Your task to perform on an android device: What's the weather going to be tomorrow? Image 0: 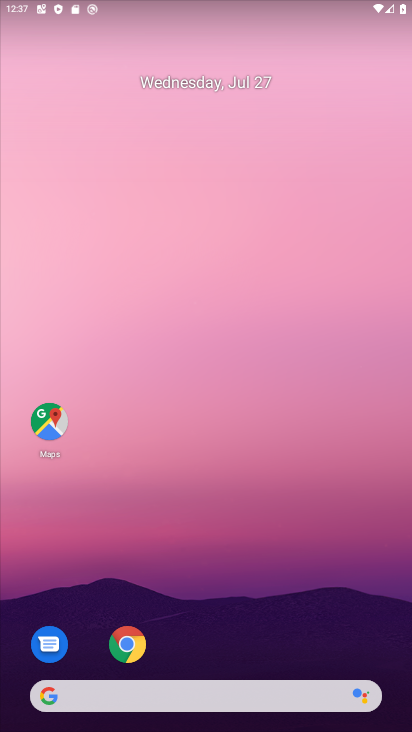
Step 0: click (127, 646)
Your task to perform on an android device: What's the weather going to be tomorrow? Image 1: 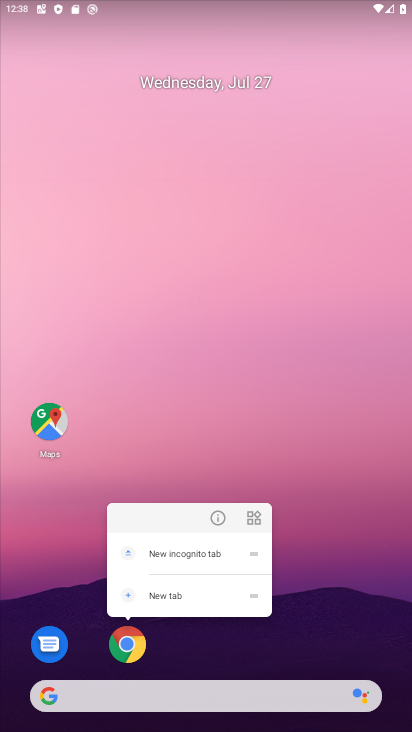
Step 1: click (118, 653)
Your task to perform on an android device: What's the weather going to be tomorrow? Image 2: 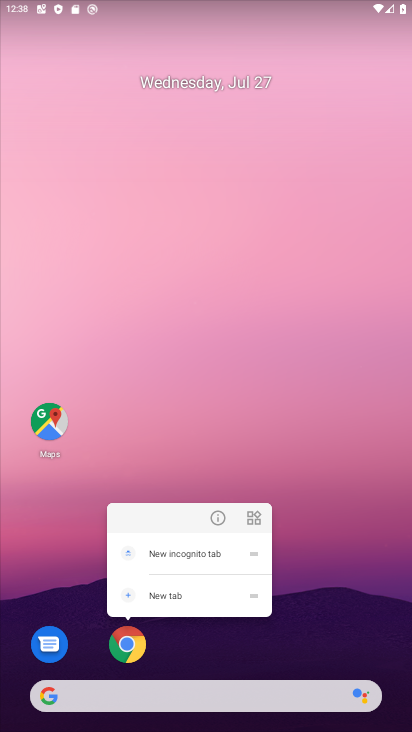
Step 2: click (118, 653)
Your task to perform on an android device: What's the weather going to be tomorrow? Image 3: 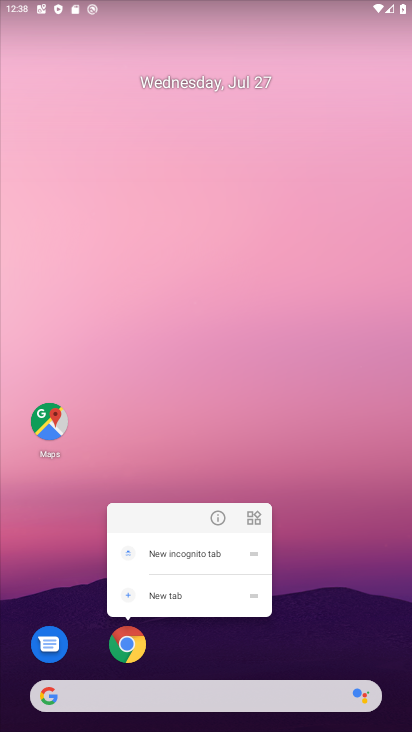
Step 3: click (118, 653)
Your task to perform on an android device: What's the weather going to be tomorrow? Image 4: 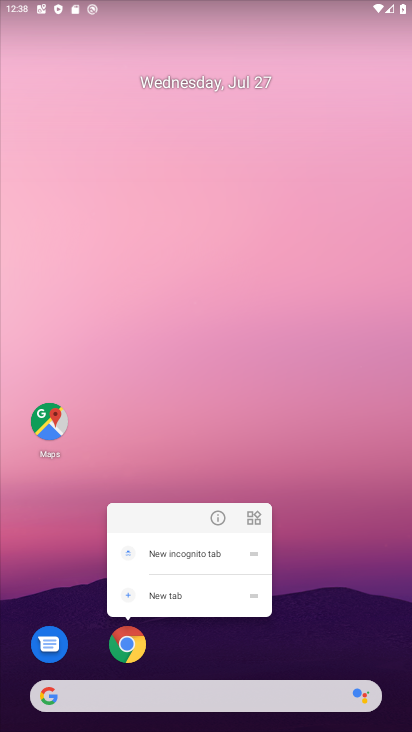
Step 4: click (122, 650)
Your task to perform on an android device: What's the weather going to be tomorrow? Image 5: 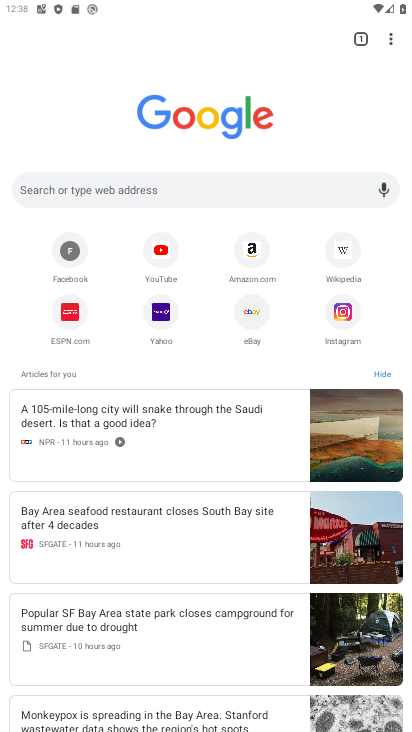
Step 5: click (229, 182)
Your task to perform on an android device: What's the weather going to be tomorrow? Image 6: 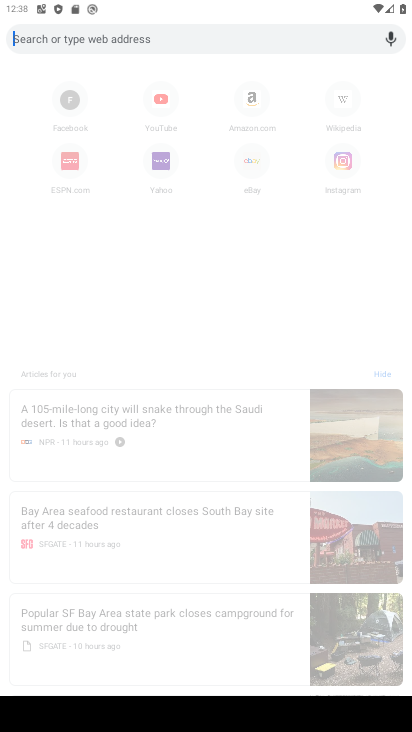
Step 6: type "What's the weather going to be tomorrow?"
Your task to perform on an android device: What's the weather going to be tomorrow? Image 7: 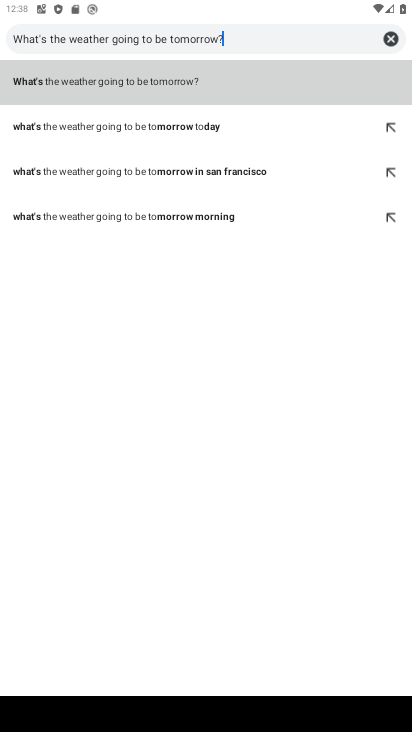
Step 7: type ""
Your task to perform on an android device: What's the weather going to be tomorrow? Image 8: 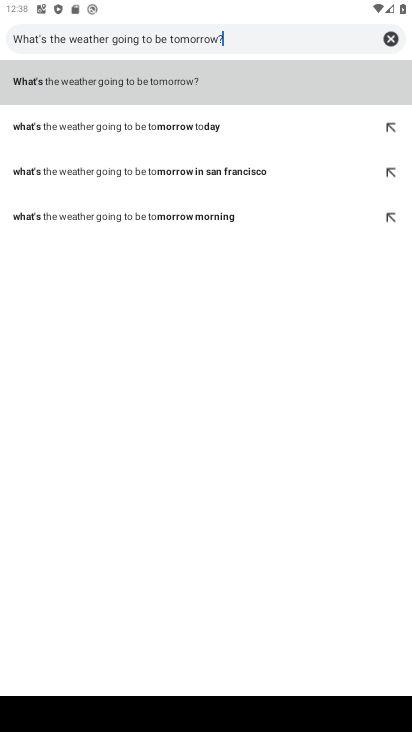
Step 8: click (93, 72)
Your task to perform on an android device: What's the weather going to be tomorrow? Image 9: 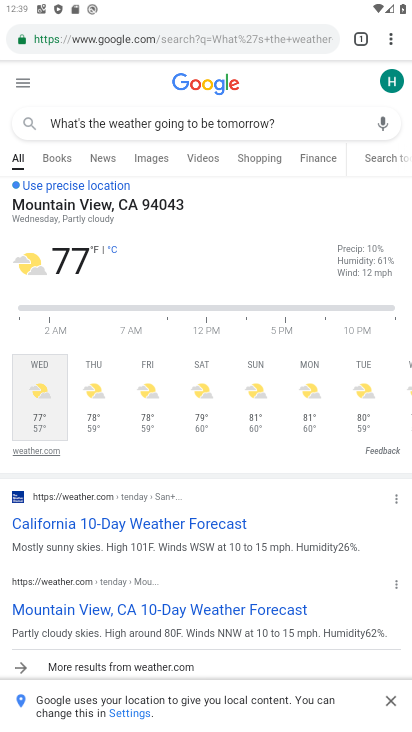
Step 9: task complete